Your task to perform on an android device: Go to calendar. Show me events next week Image 0: 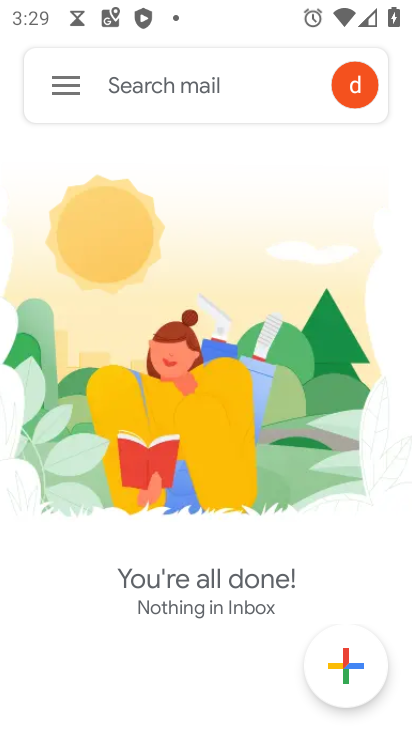
Step 0: press home button
Your task to perform on an android device: Go to calendar. Show me events next week Image 1: 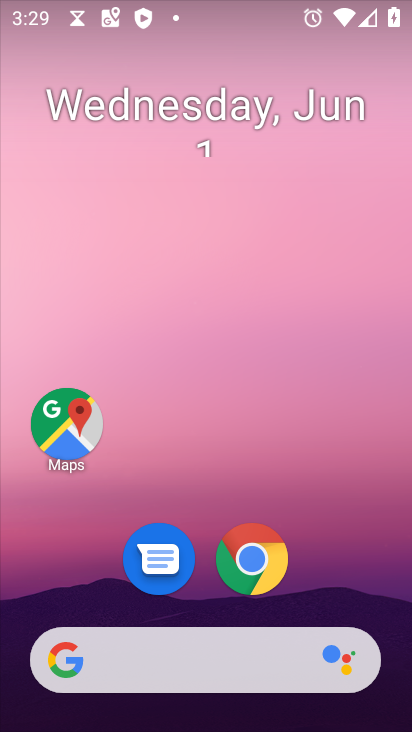
Step 1: drag from (327, 593) to (335, 3)
Your task to perform on an android device: Go to calendar. Show me events next week Image 2: 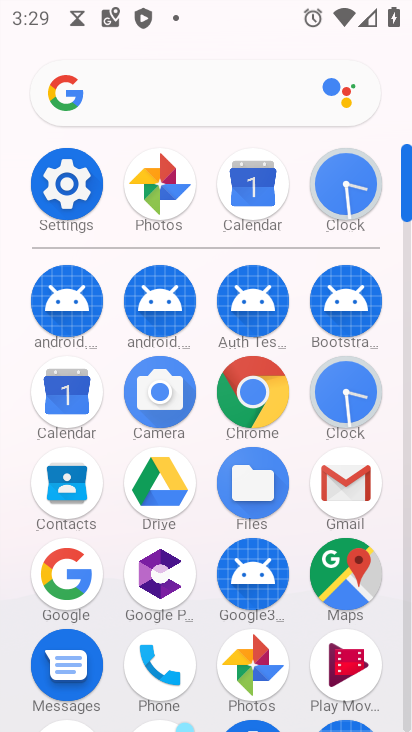
Step 2: click (60, 407)
Your task to perform on an android device: Go to calendar. Show me events next week Image 3: 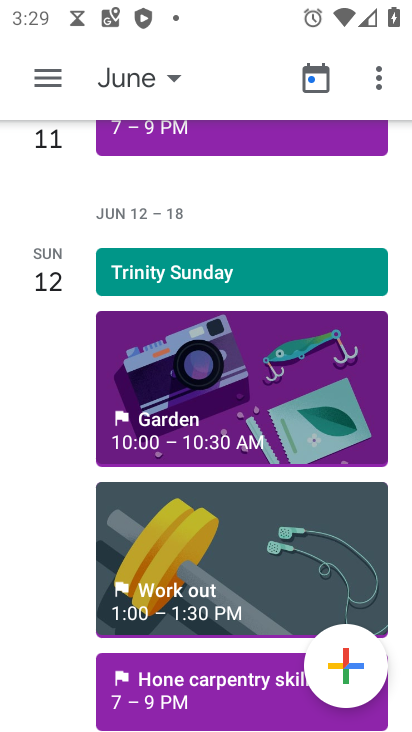
Step 3: click (103, 81)
Your task to perform on an android device: Go to calendar. Show me events next week Image 4: 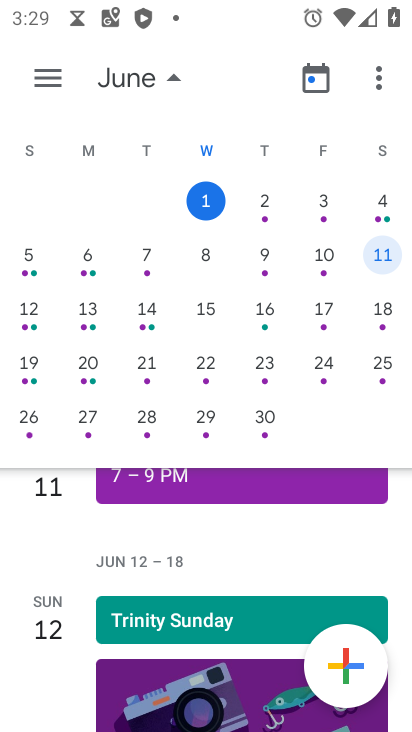
Step 4: click (41, 267)
Your task to perform on an android device: Go to calendar. Show me events next week Image 5: 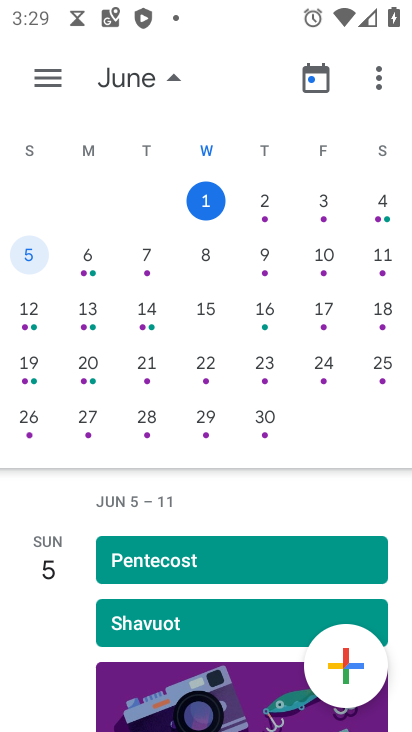
Step 5: task complete